Your task to perform on an android device: Open Google Image 0: 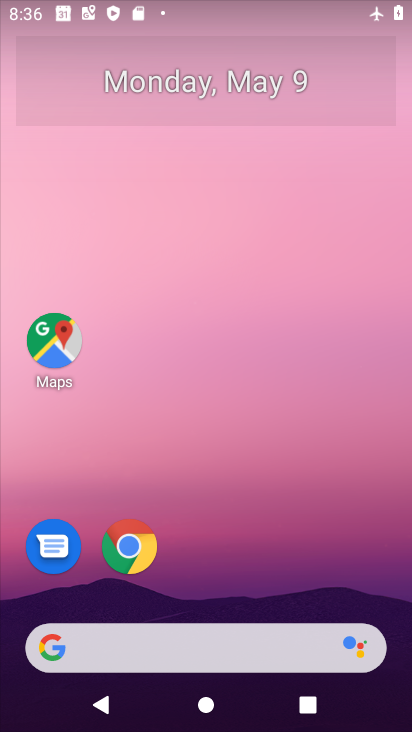
Step 0: drag from (246, 690) to (365, 69)
Your task to perform on an android device: Open Google Image 1: 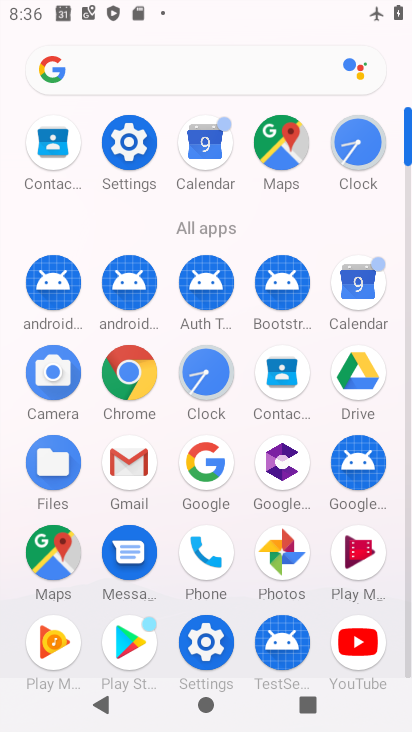
Step 1: click (221, 461)
Your task to perform on an android device: Open Google Image 2: 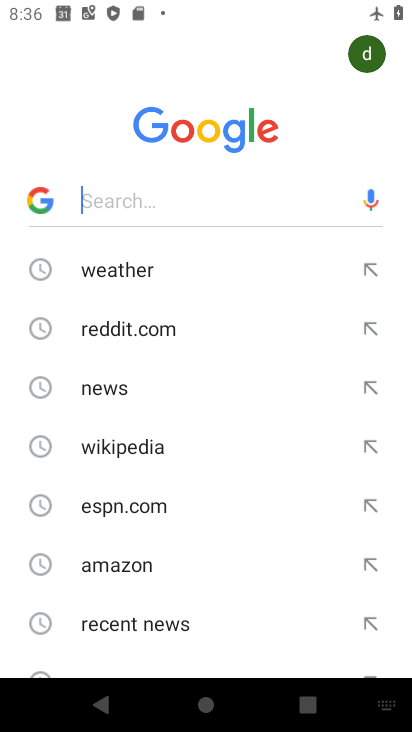
Step 2: task complete